Your task to perform on an android device: turn smart compose on in the gmail app Image 0: 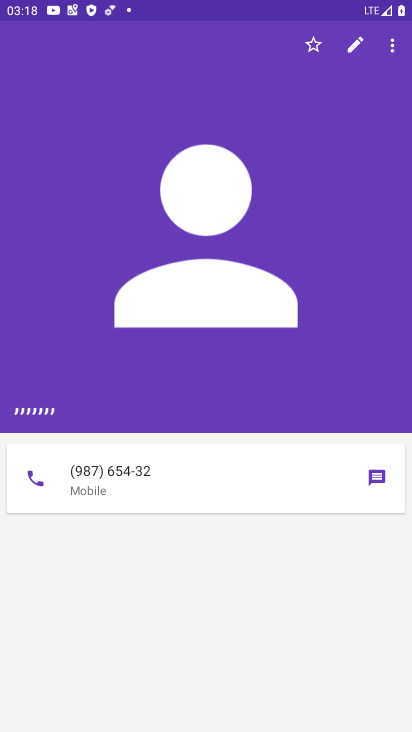
Step 0: press home button
Your task to perform on an android device: turn smart compose on in the gmail app Image 1: 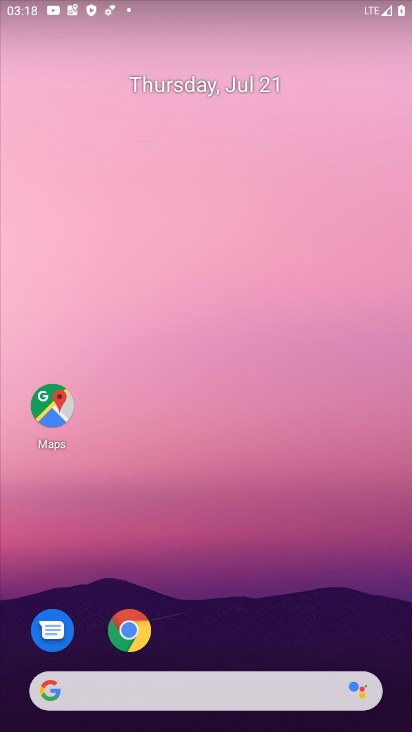
Step 1: drag from (219, 634) to (154, 86)
Your task to perform on an android device: turn smart compose on in the gmail app Image 2: 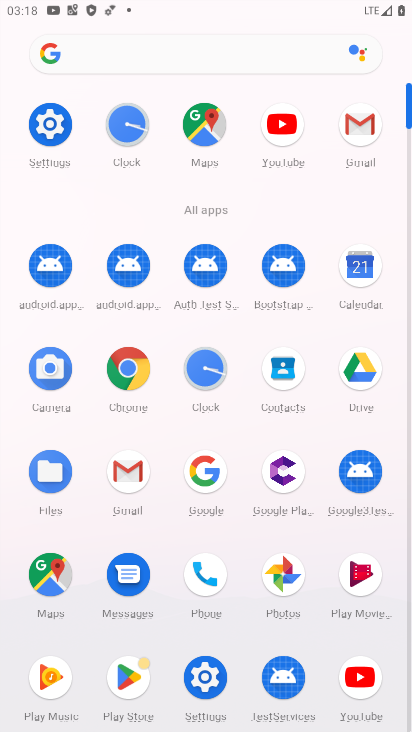
Step 2: click (365, 111)
Your task to perform on an android device: turn smart compose on in the gmail app Image 3: 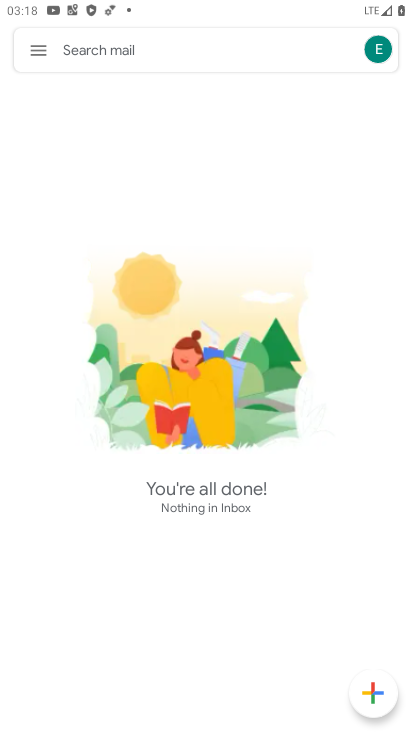
Step 3: click (48, 52)
Your task to perform on an android device: turn smart compose on in the gmail app Image 4: 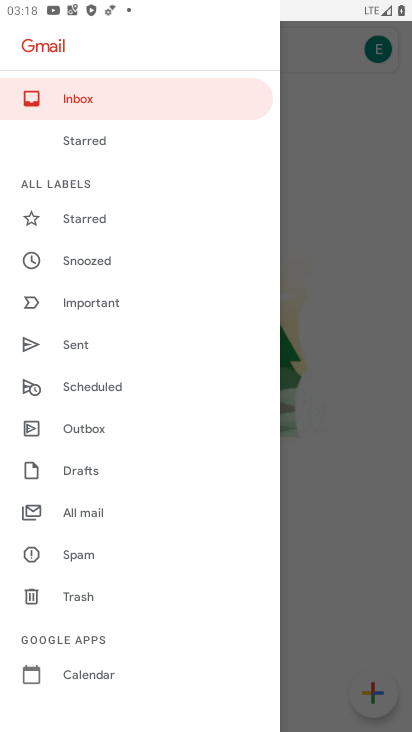
Step 4: drag from (117, 652) to (183, 215)
Your task to perform on an android device: turn smart compose on in the gmail app Image 5: 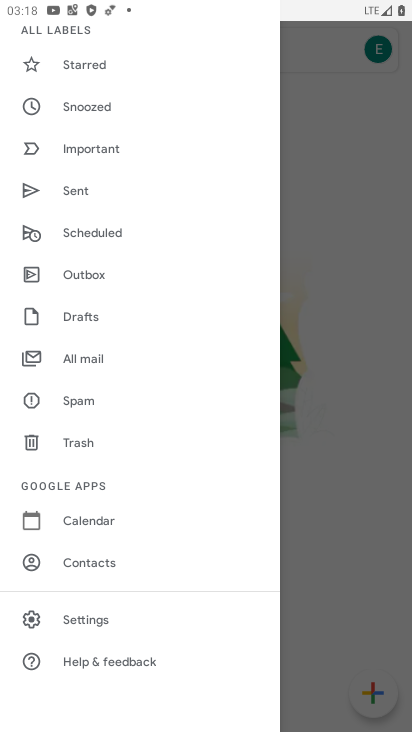
Step 5: click (85, 627)
Your task to perform on an android device: turn smart compose on in the gmail app Image 6: 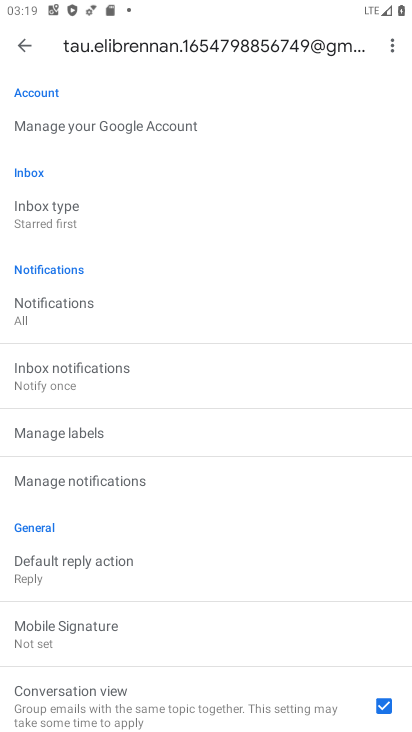
Step 6: task complete